Your task to perform on an android device: set an alarm Image 0: 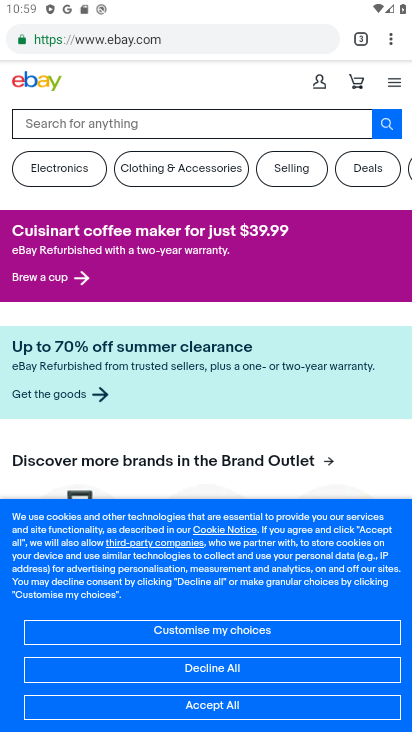
Step 0: press home button
Your task to perform on an android device: set an alarm Image 1: 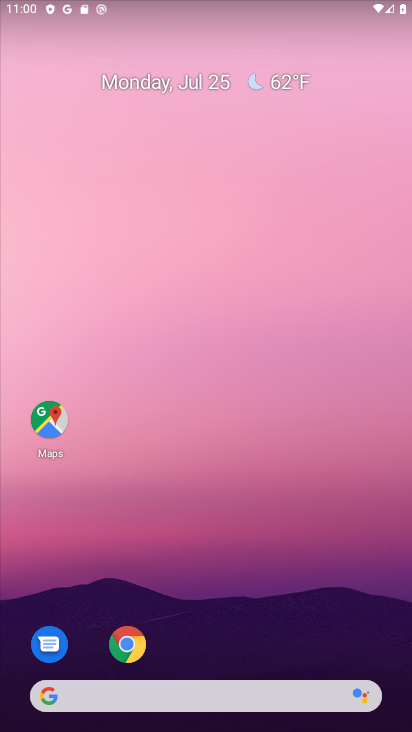
Step 1: drag from (224, 633) to (225, 208)
Your task to perform on an android device: set an alarm Image 2: 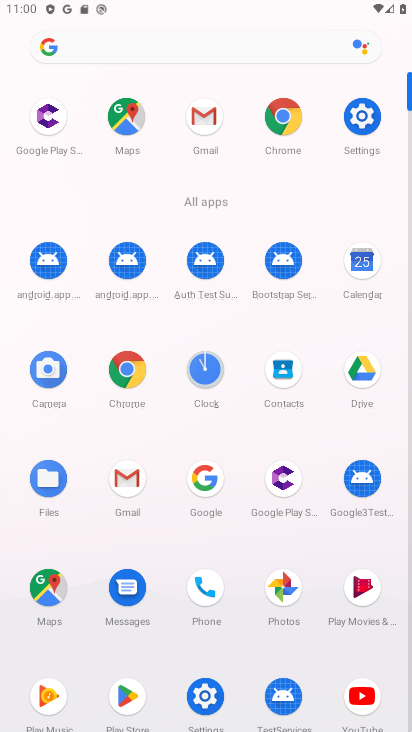
Step 2: click (210, 374)
Your task to perform on an android device: set an alarm Image 3: 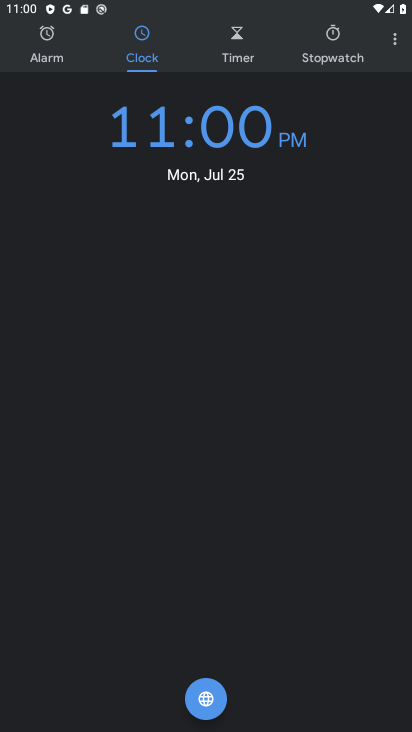
Step 3: click (48, 53)
Your task to perform on an android device: set an alarm Image 4: 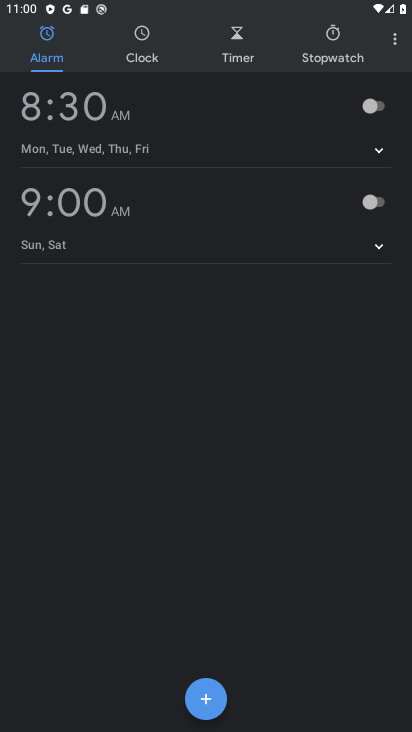
Step 4: click (204, 699)
Your task to perform on an android device: set an alarm Image 5: 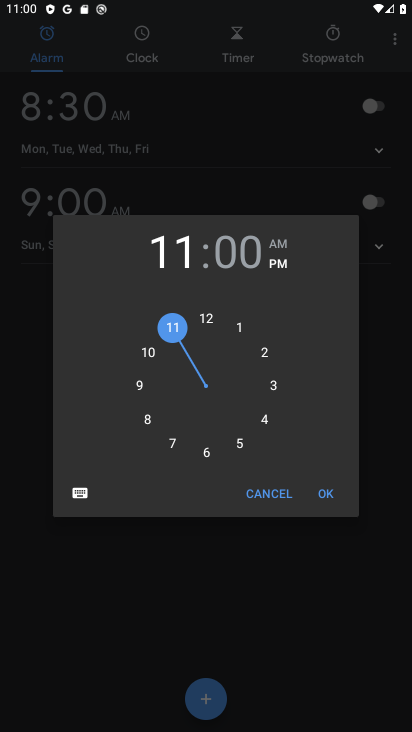
Step 5: click (323, 500)
Your task to perform on an android device: set an alarm Image 6: 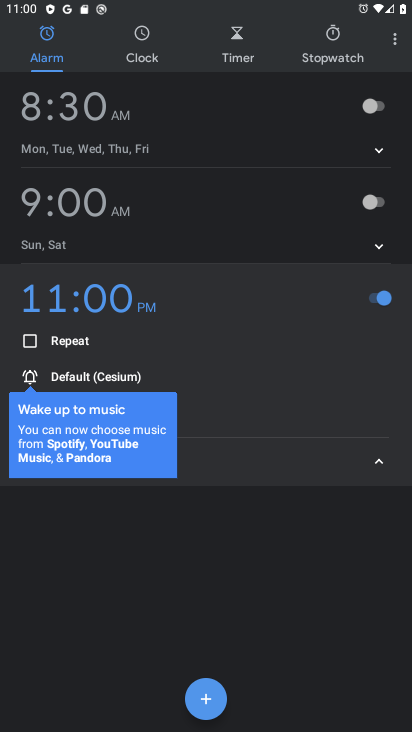
Step 6: task complete